Your task to perform on an android device: What's on my calendar today? Image 0: 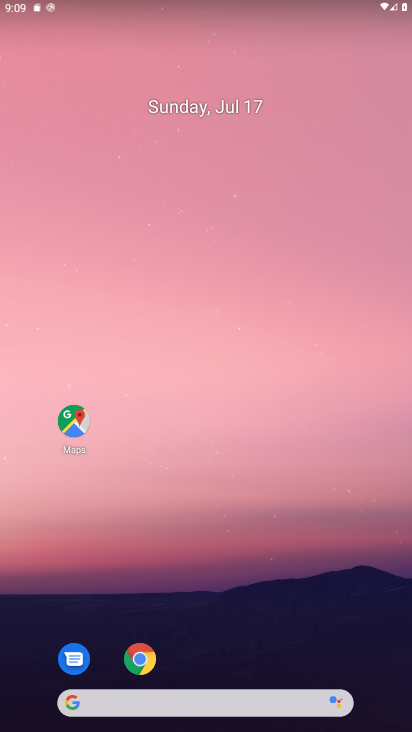
Step 0: drag from (219, 708) to (190, 336)
Your task to perform on an android device: What's on my calendar today? Image 1: 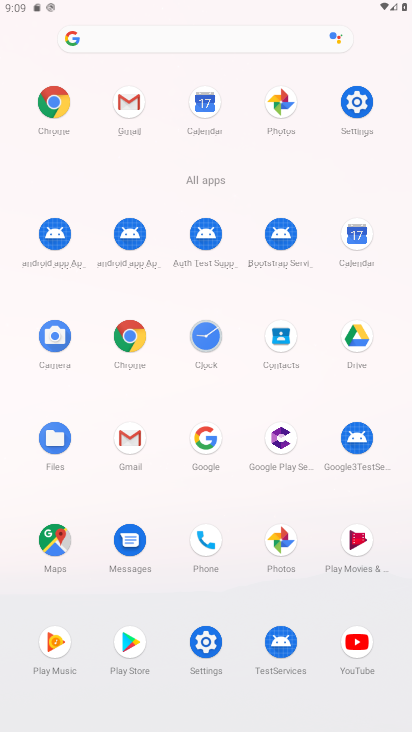
Step 1: click (359, 248)
Your task to perform on an android device: What's on my calendar today? Image 2: 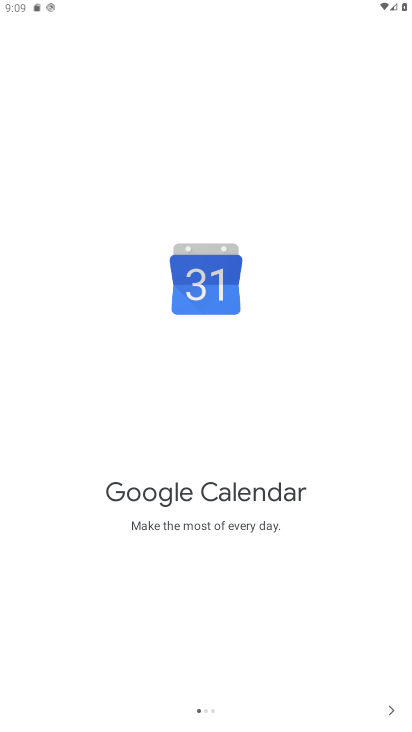
Step 2: click (391, 707)
Your task to perform on an android device: What's on my calendar today? Image 3: 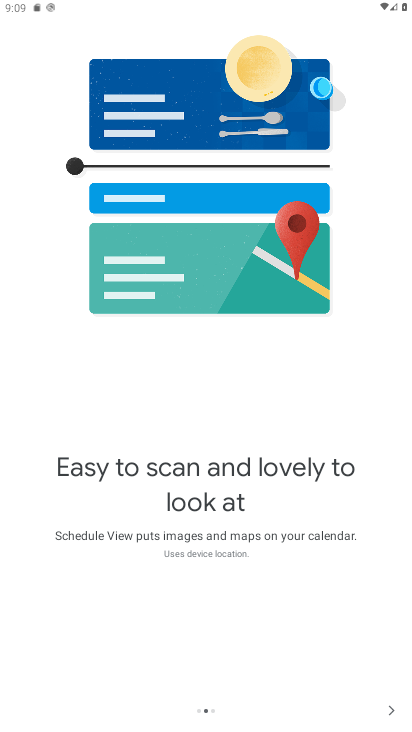
Step 3: click (391, 707)
Your task to perform on an android device: What's on my calendar today? Image 4: 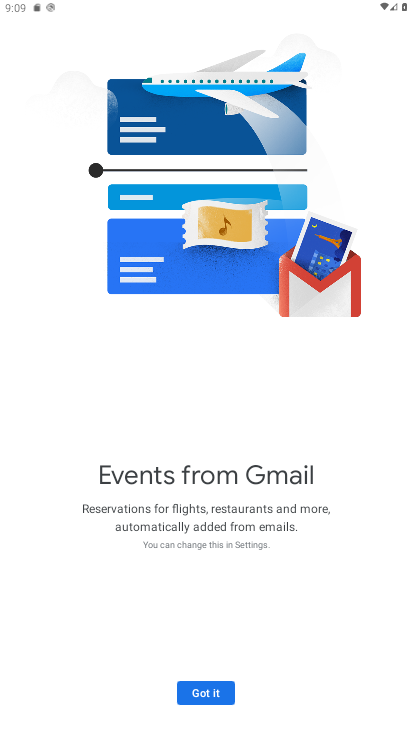
Step 4: click (216, 697)
Your task to perform on an android device: What's on my calendar today? Image 5: 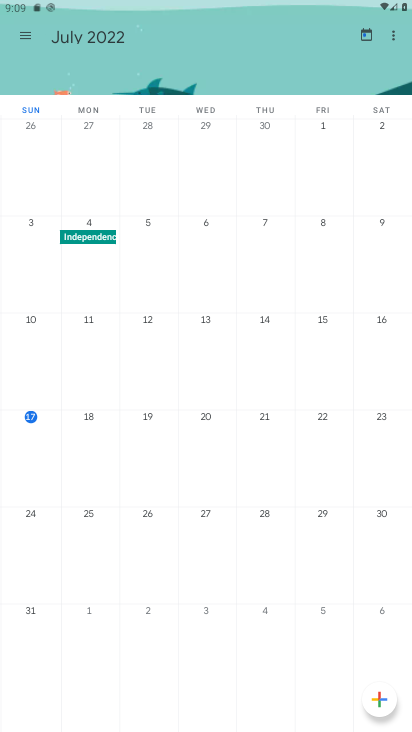
Step 5: click (30, 36)
Your task to perform on an android device: What's on my calendar today? Image 6: 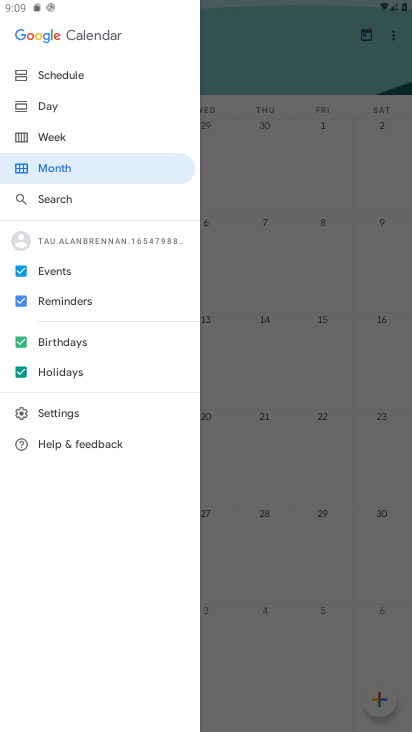
Step 6: click (62, 79)
Your task to perform on an android device: What's on my calendar today? Image 7: 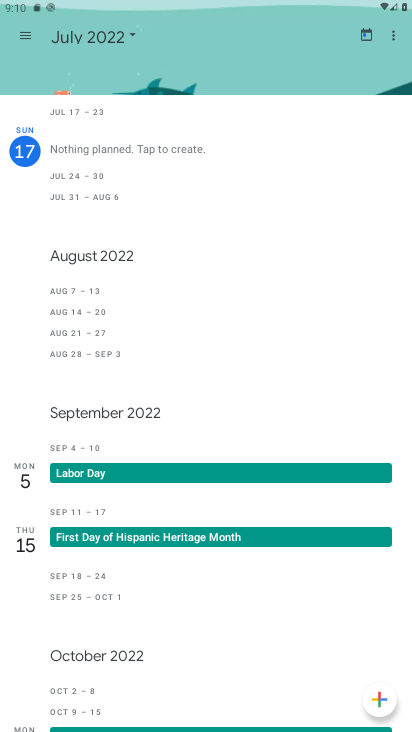
Step 7: task complete